Your task to perform on an android device: toggle sleep mode Image 0: 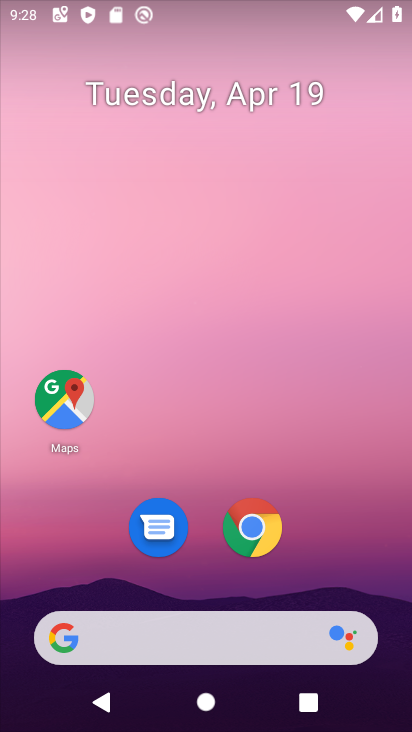
Step 0: drag from (236, 674) to (258, 107)
Your task to perform on an android device: toggle sleep mode Image 1: 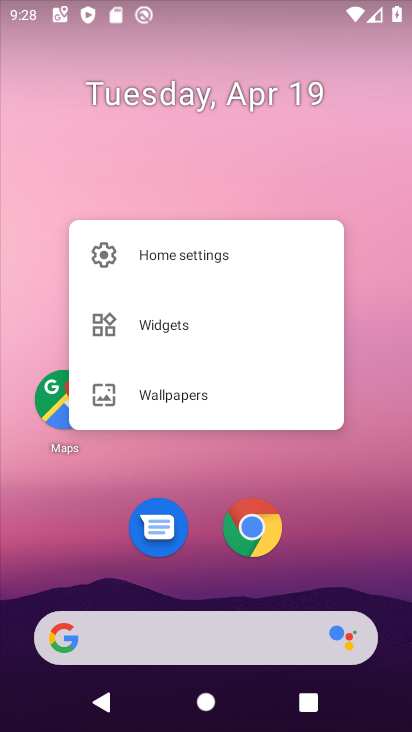
Step 1: click (333, 536)
Your task to perform on an android device: toggle sleep mode Image 2: 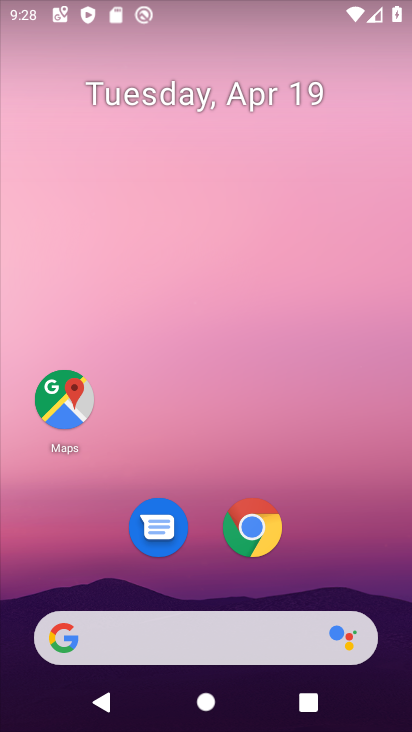
Step 2: drag from (247, 671) to (252, 128)
Your task to perform on an android device: toggle sleep mode Image 3: 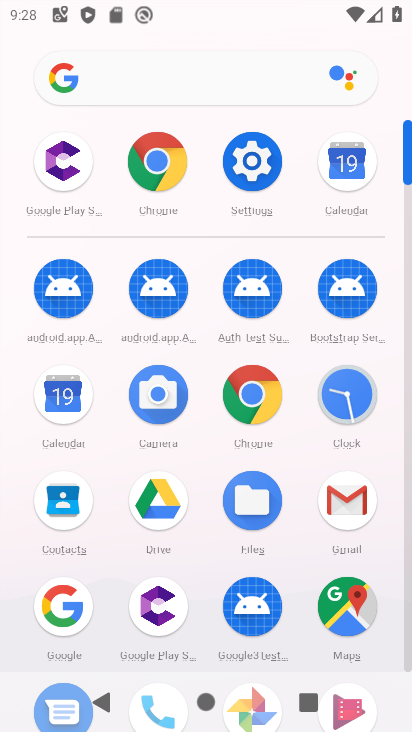
Step 3: click (269, 165)
Your task to perform on an android device: toggle sleep mode Image 4: 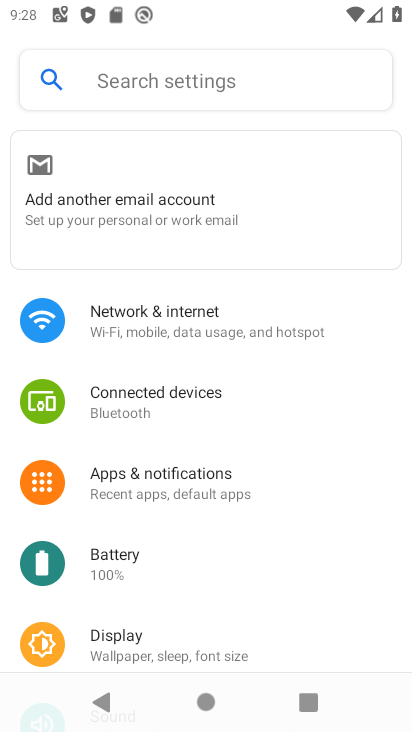
Step 4: click (180, 80)
Your task to perform on an android device: toggle sleep mode Image 5: 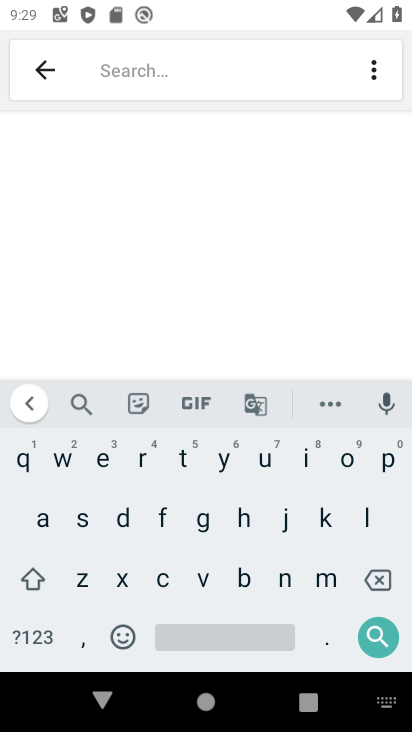
Step 5: click (85, 517)
Your task to perform on an android device: toggle sleep mode Image 6: 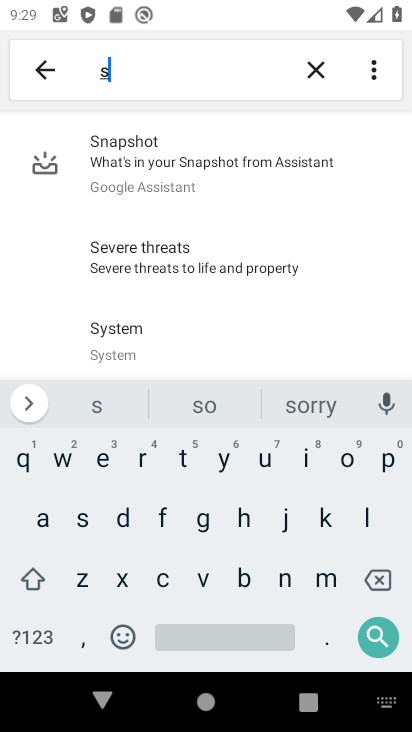
Step 6: click (371, 517)
Your task to perform on an android device: toggle sleep mode Image 7: 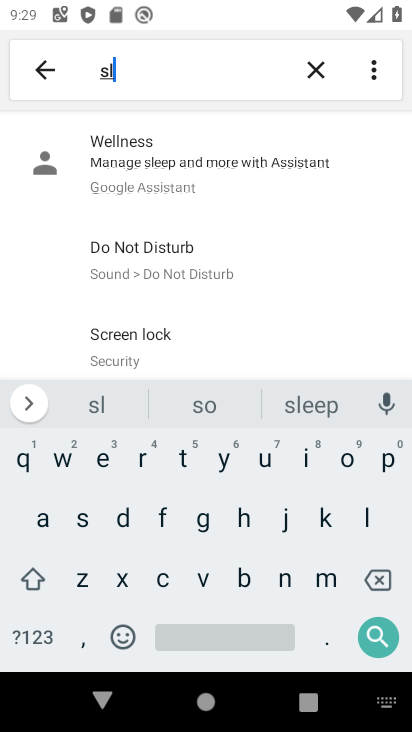
Step 7: click (163, 169)
Your task to perform on an android device: toggle sleep mode Image 8: 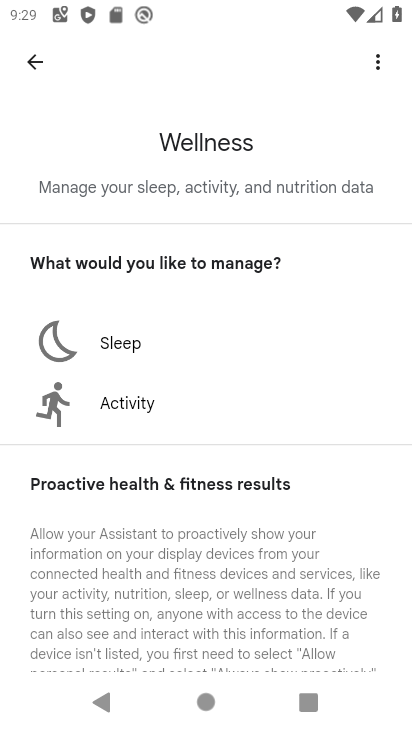
Step 8: click (121, 352)
Your task to perform on an android device: toggle sleep mode Image 9: 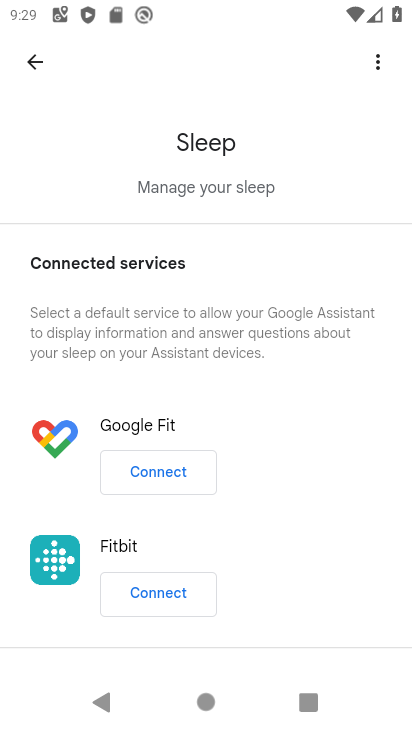
Step 9: task complete